Your task to perform on an android device: change timer sound Image 0: 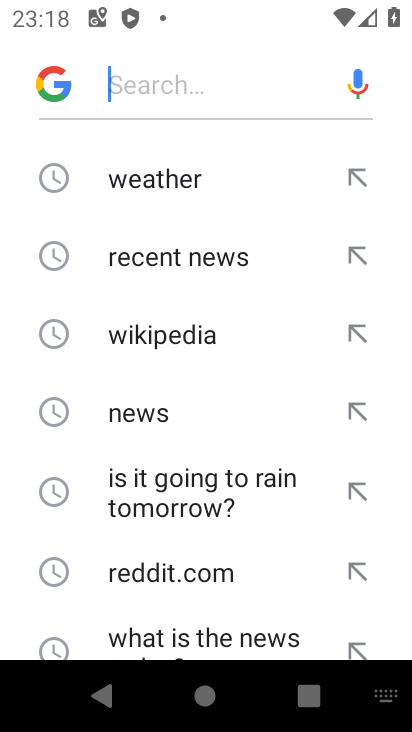
Step 0: press home button
Your task to perform on an android device: change timer sound Image 1: 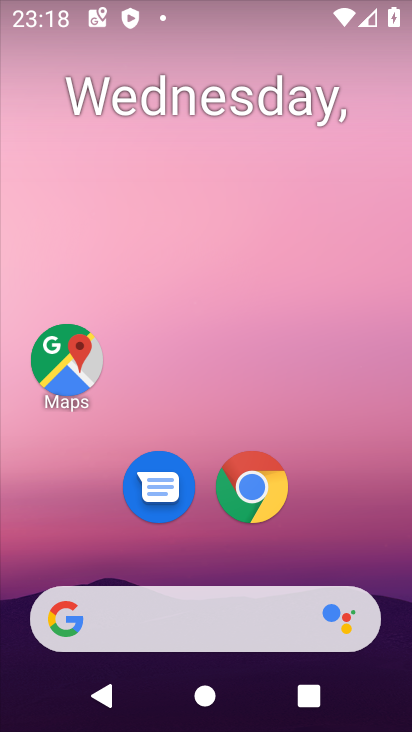
Step 1: drag from (351, 588) to (383, 42)
Your task to perform on an android device: change timer sound Image 2: 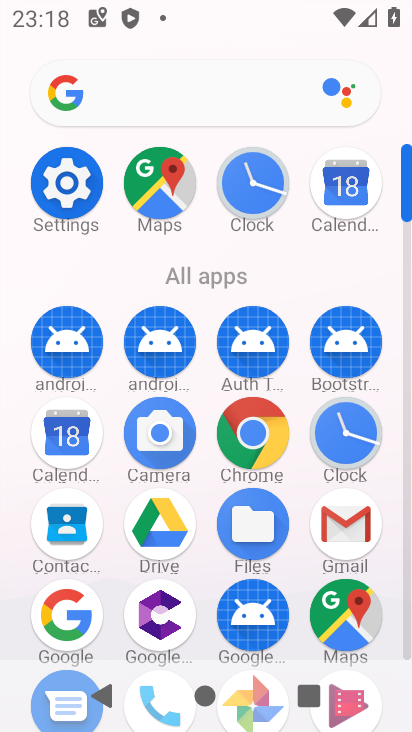
Step 2: click (251, 186)
Your task to perform on an android device: change timer sound Image 3: 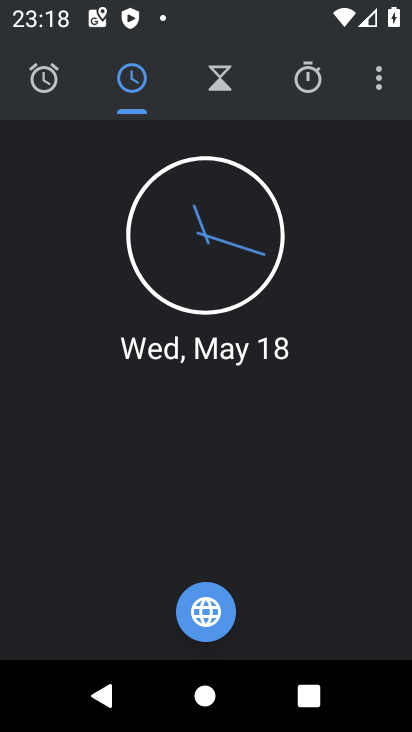
Step 3: click (382, 84)
Your task to perform on an android device: change timer sound Image 4: 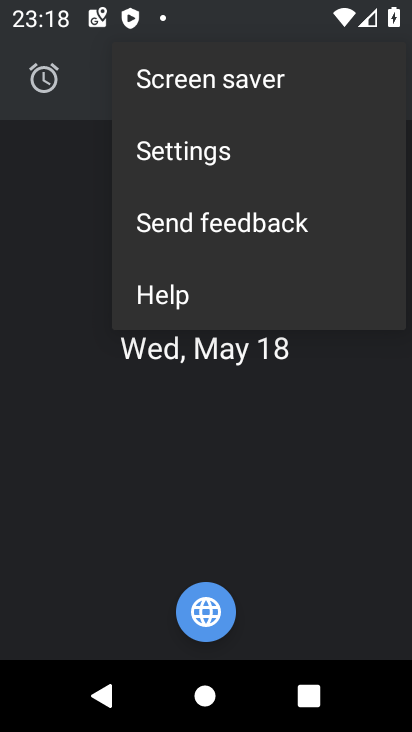
Step 4: click (175, 149)
Your task to perform on an android device: change timer sound Image 5: 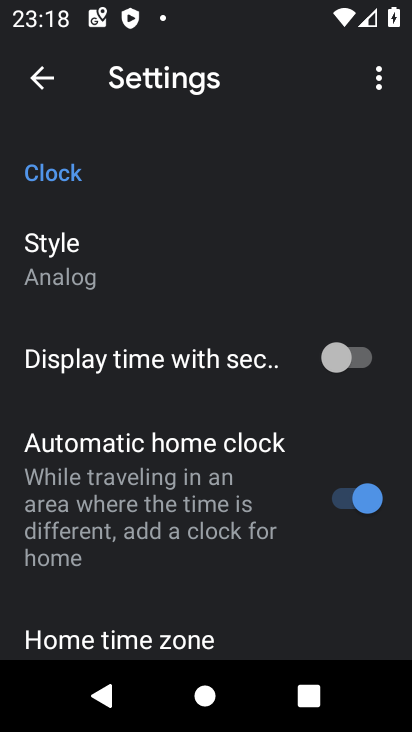
Step 5: drag from (181, 542) to (165, 216)
Your task to perform on an android device: change timer sound Image 6: 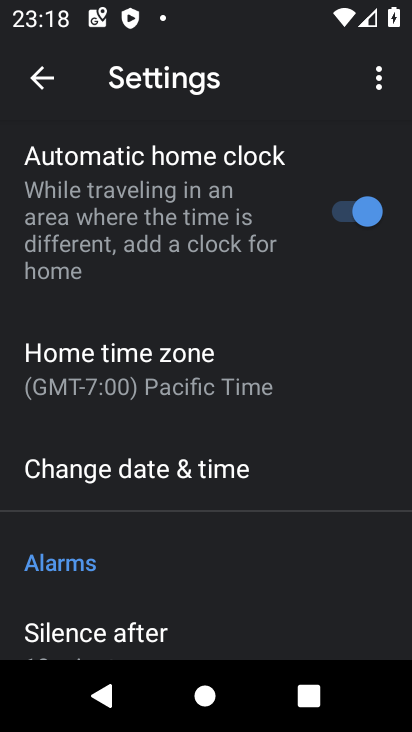
Step 6: drag from (191, 542) to (170, 177)
Your task to perform on an android device: change timer sound Image 7: 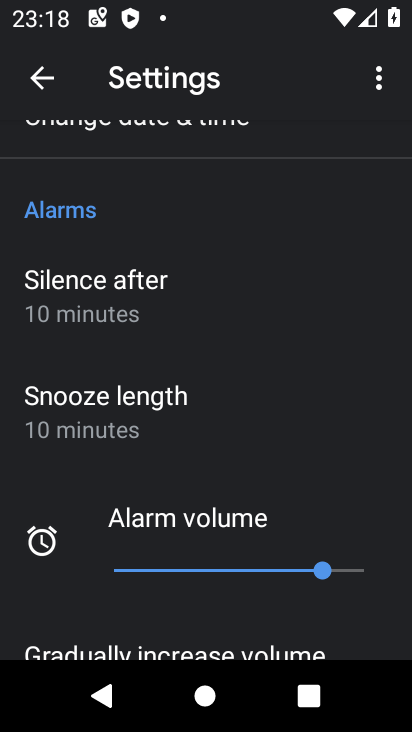
Step 7: drag from (200, 455) to (170, 159)
Your task to perform on an android device: change timer sound Image 8: 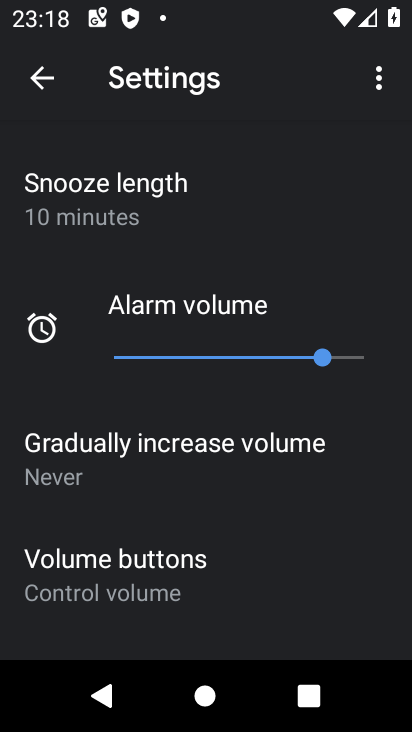
Step 8: drag from (184, 436) to (140, 119)
Your task to perform on an android device: change timer sound Image 9: 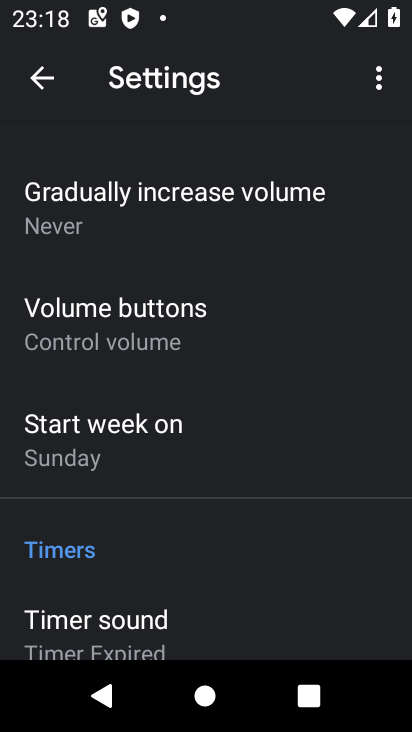
Step 9: drag from (165, 445) to (151, 175)
Your task to perform on an android device: change timer sound Image 10: 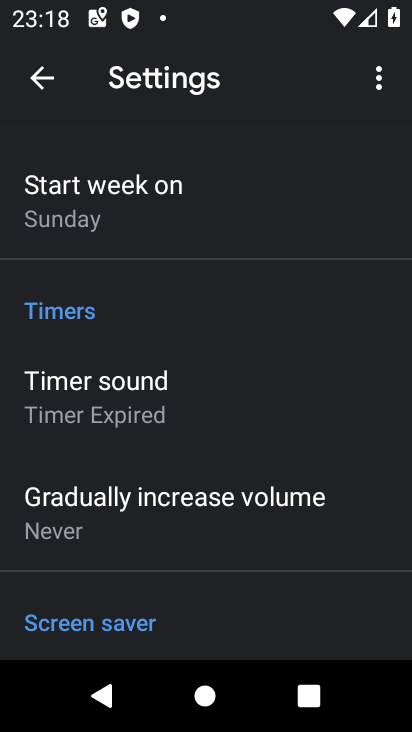
Step 10: click (82, 410)
Your task to perform on an android device: change timer sound Image 11: 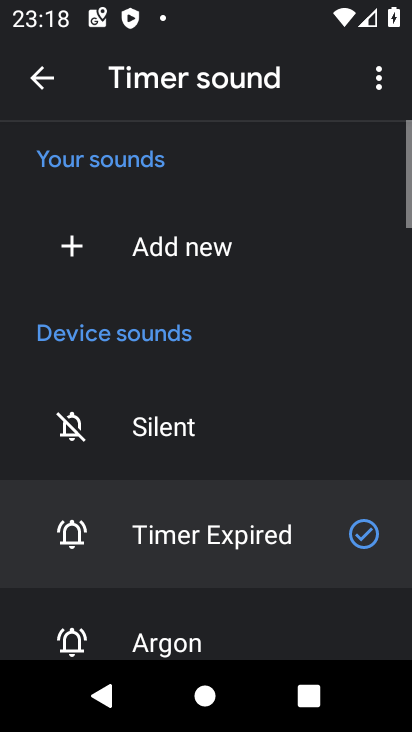
Step 11: drag from (203, 483) to (207, 199)
Your task to perform on an android device: change timer sound Image 12: 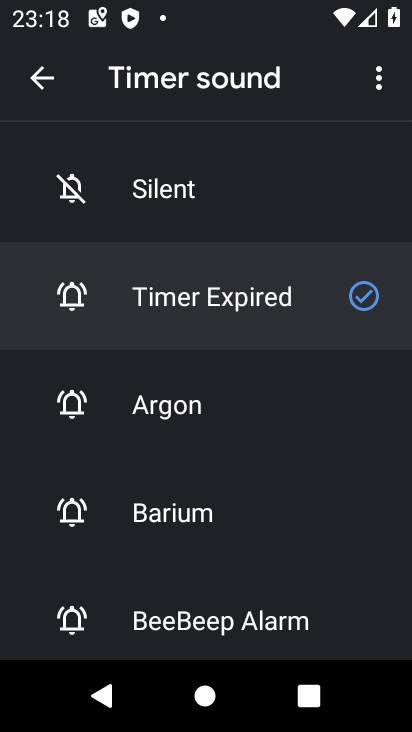
Step 12: click (159, 402)
Your task to perform on an android device: change timer sound Image 13: 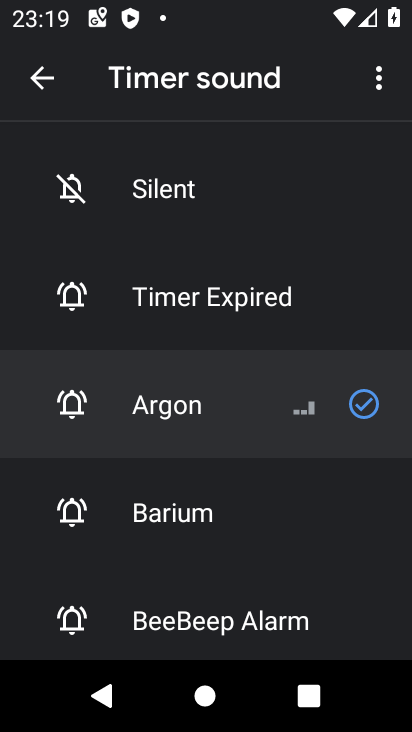
Step 13: task complete